Your task to perform on an android device: star an email in the gmail app Image 0: 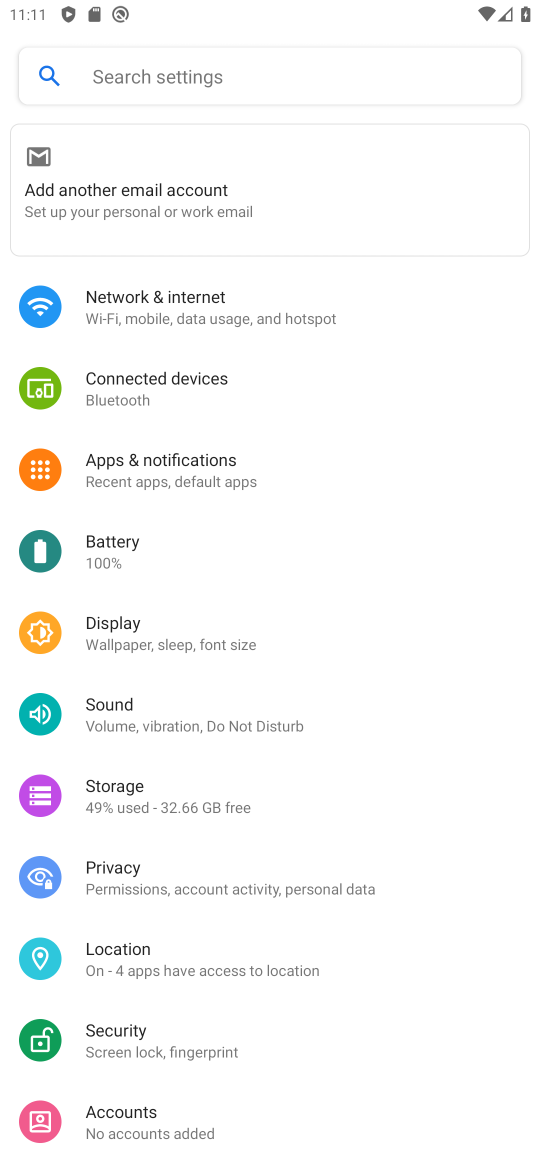
Step 0: press home button
Your task to perform on an android device: star an email in the gmail app Image 1: 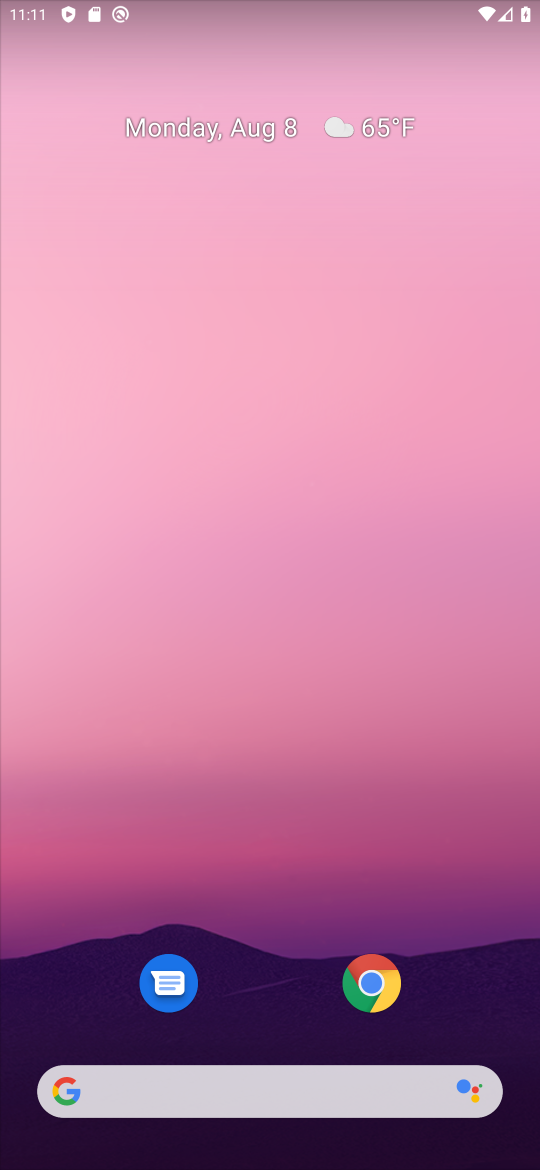
Step 1: drag from (252, 1028) to (41, 9)
Your task to perform on an android device: star an email in the gmail app Image 2: 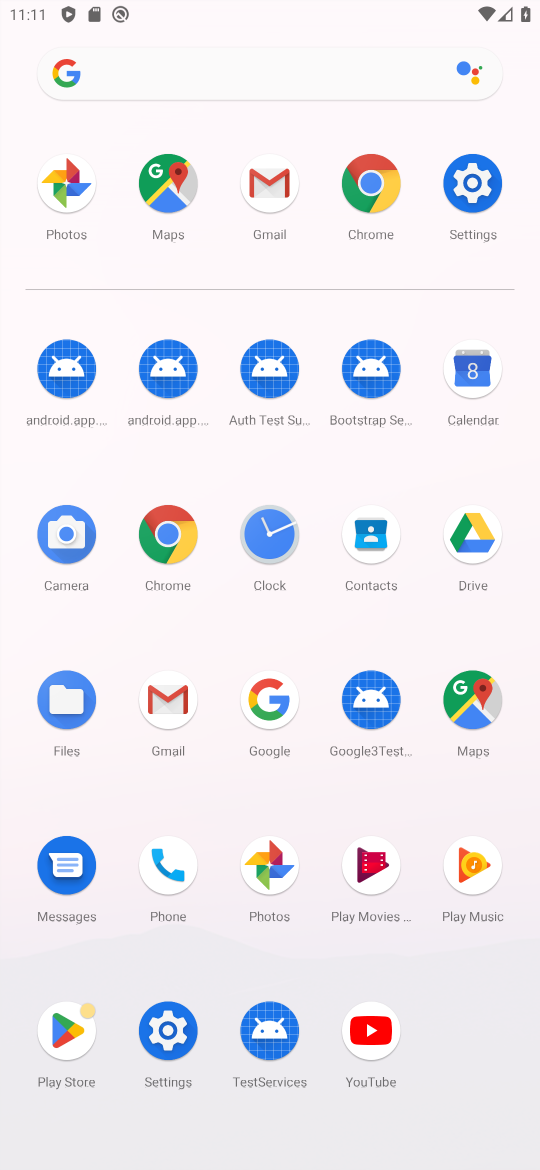
Step 2: click (275, 211)
Your task to perform on an android device: star an email in the gmail app Image 3: 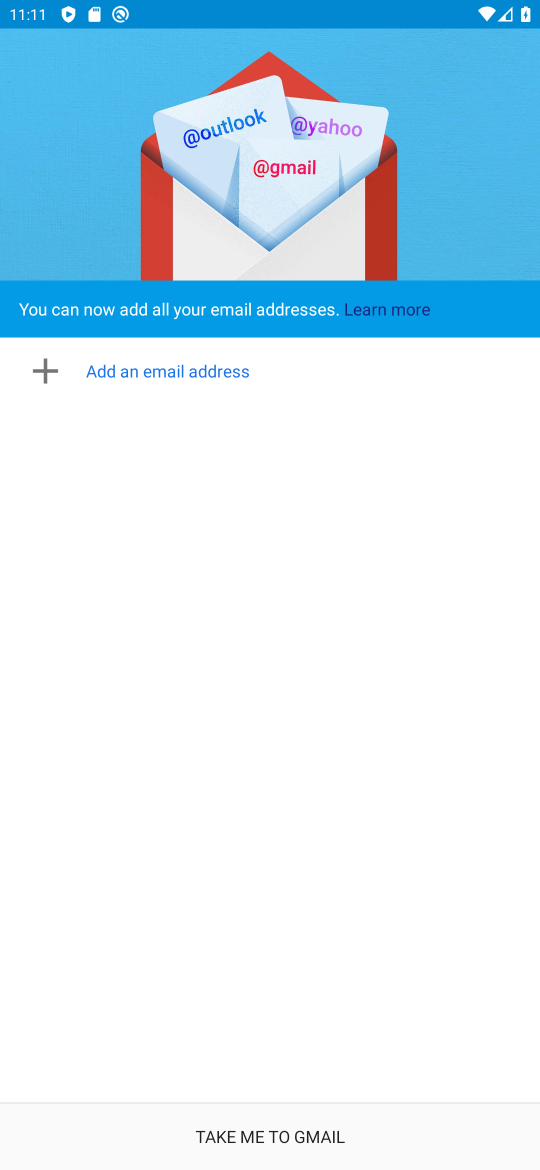
Step 3: task complete